Your task to perform on an android device: Open ESPN.com Image 0: 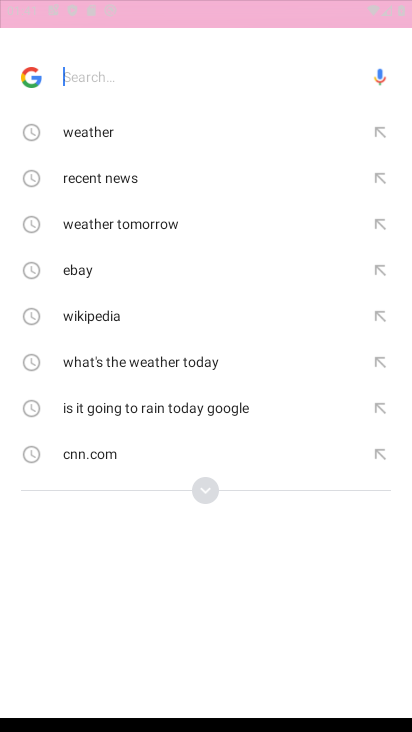
Step 0: click (234, 18)
Your task to perform on an android device: Open ESPN.com Image 1: 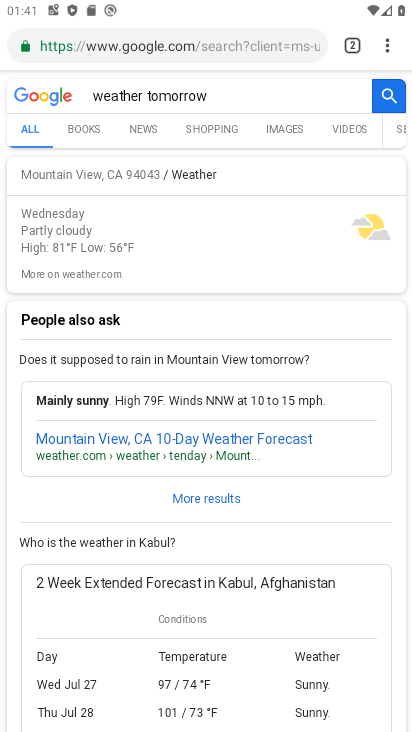
Step 1: click (133, 44)
Your task to perform on an android device: Open ESPN.com Image 2: 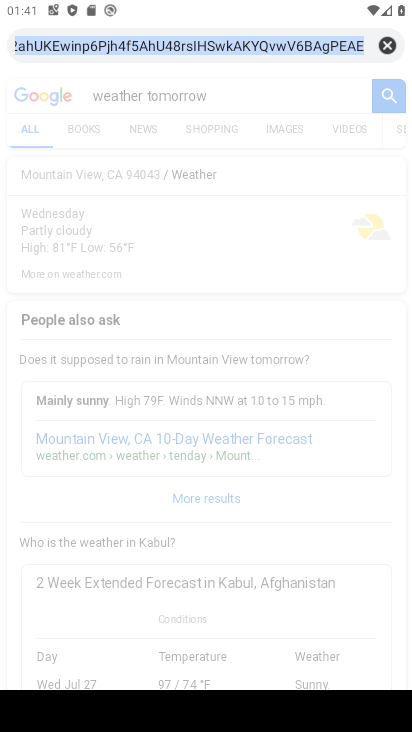
Step 2: type "espn.com"
Your task to perform on an android device: Open ESPN.com Image 3: 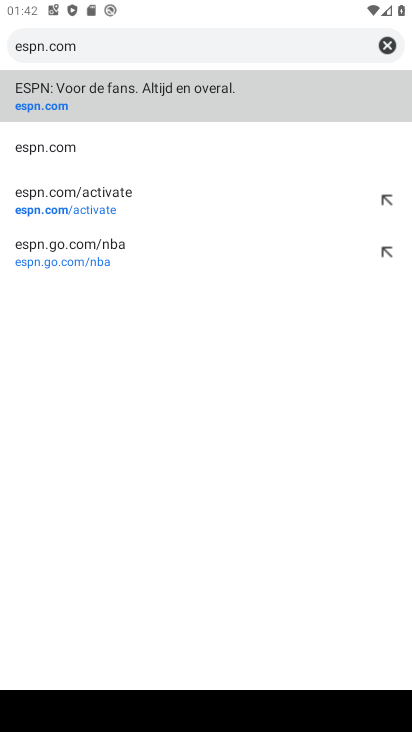
Step 3: click (125, 103)
Your task to perform on an android device: Open ESPN.com Image 4: 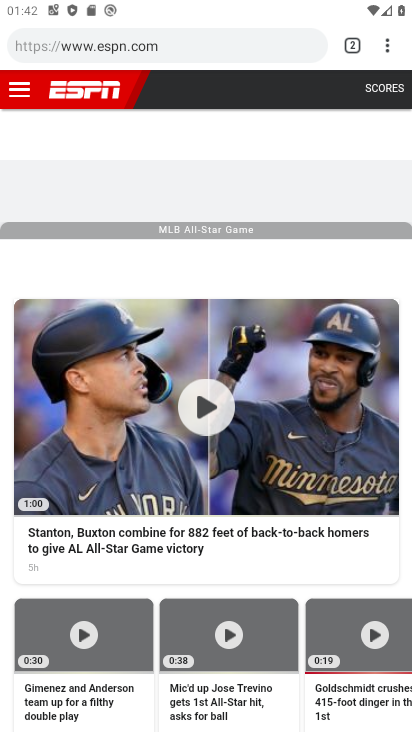
Step 4: task complete